Your task to perform on an android device: Go to Maps Image 0: 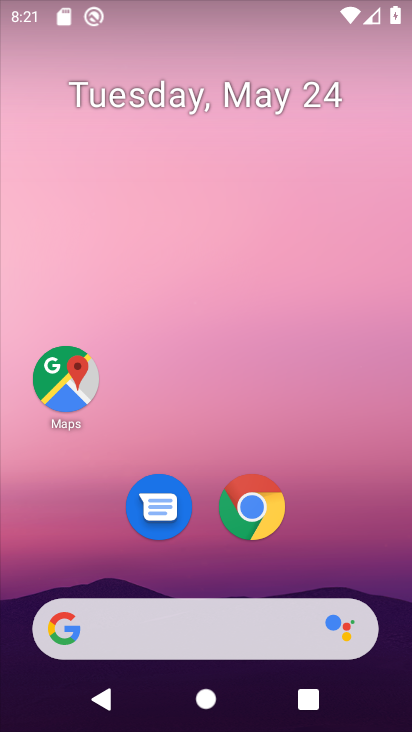
Step 0: drag from (212, 595) to (227, 86)
Your task to perform on an android device: Go to Maps Image 1: 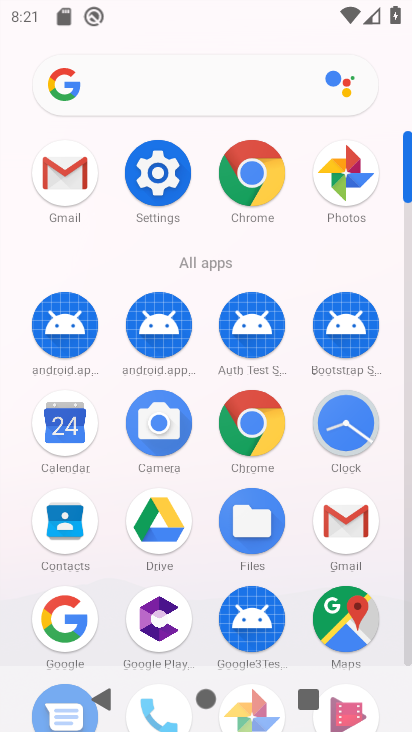
Step 1: click (341, 633)
Your task to perform on an android device: Go to Maps Image 2: 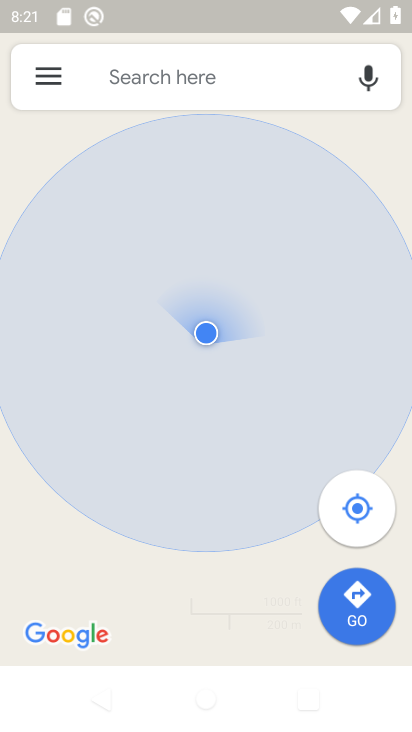
Step 2: task complete